Your task to perform on an android device: open app "Airtel Thanks" Image 0: 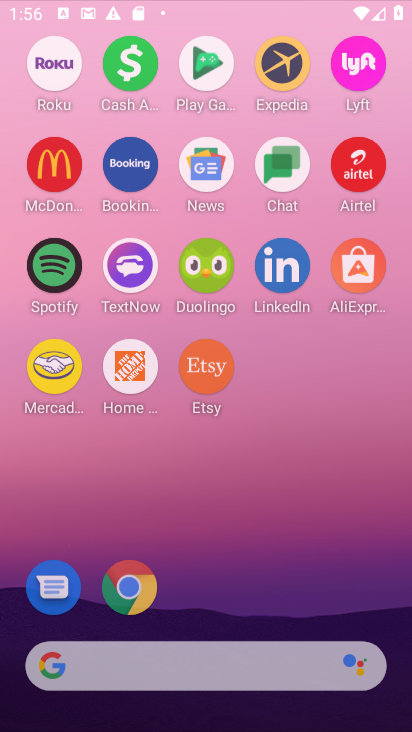
Step 0: drag from (285, 639) to (164, 13)
Your task to perform on an android device: open app "Airtel Thanks" Image 1: 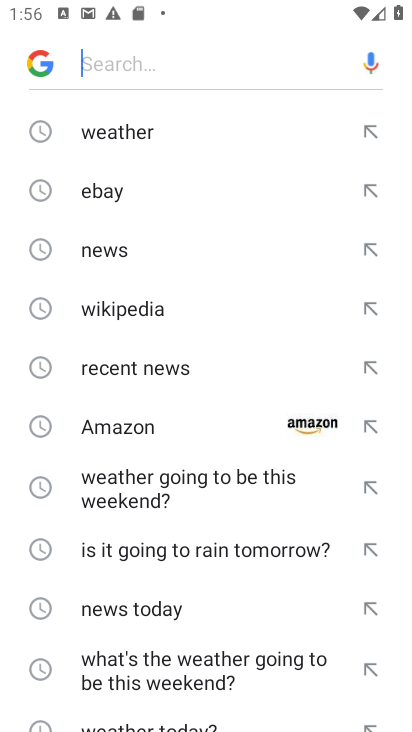
Step 1: press home button
Your task to perform on an android device: open app "Airtel Thanks" Image 2: 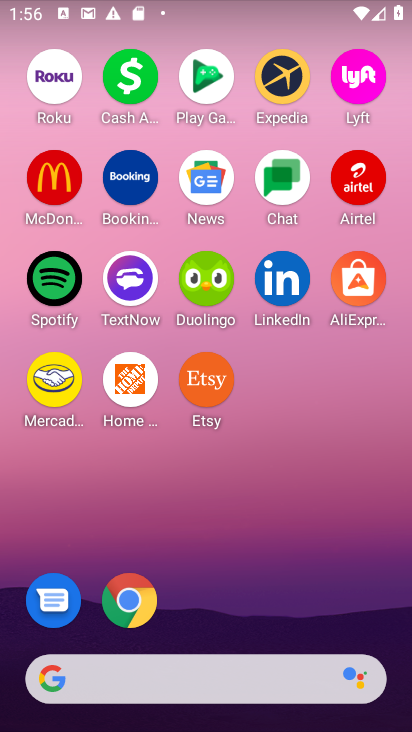
Step 2: drag from (254, 647) to (262, 106)
Your task to perform on an android device: open app "Airtel Thanks" Image 3: 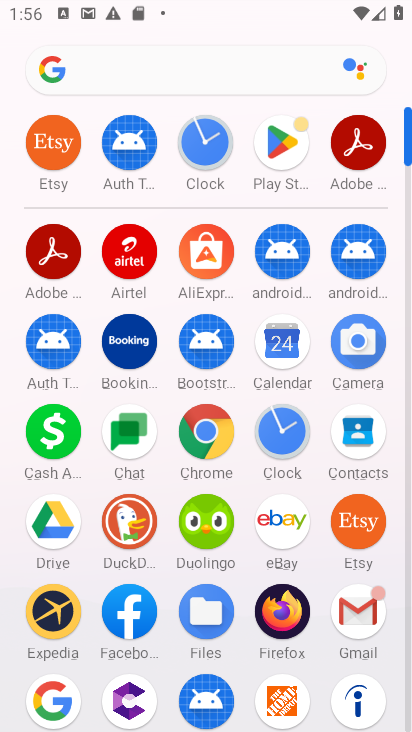
Step 3: click (262, 150)
Your task to perform on an android device: open app "Airtel Thanks" Image 4: 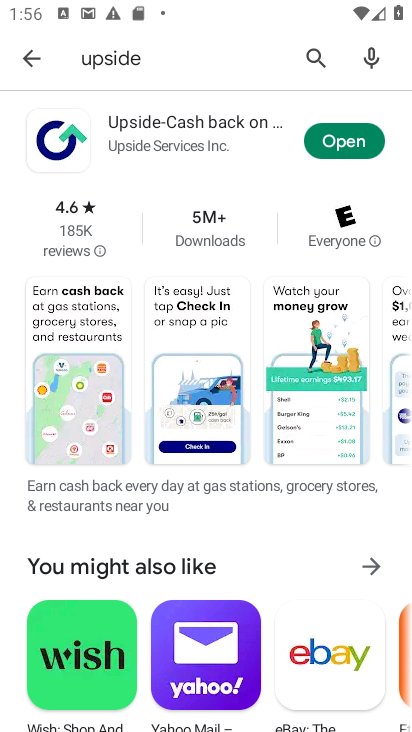
Step 4: click (315, 76)
Your task to perform on an android device: open app "Airtel Thanks" Image 5: 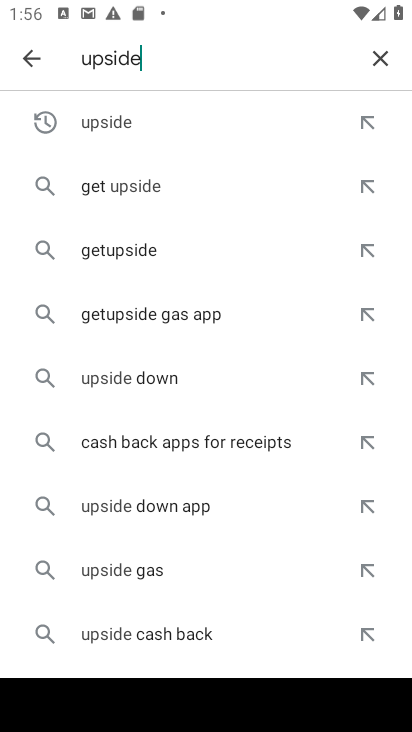
Step 5: click (373, 60)
Your task to perform on an android device: open app "Airtel Thanks" Image 6: 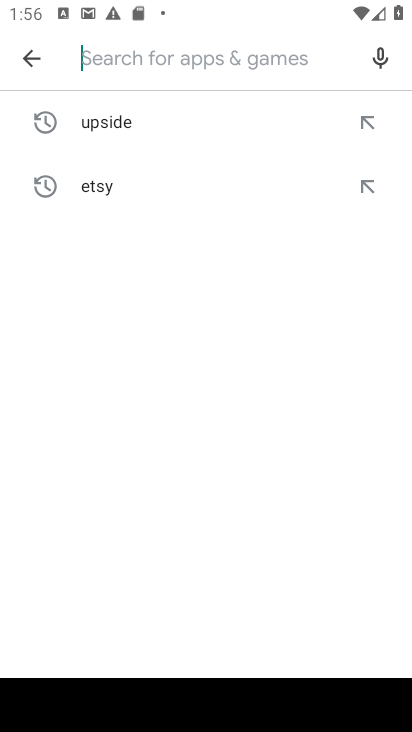
Step 6: type "airtel"
Your task to perform on an android device: open app "Airtel Thanks" Image 7: 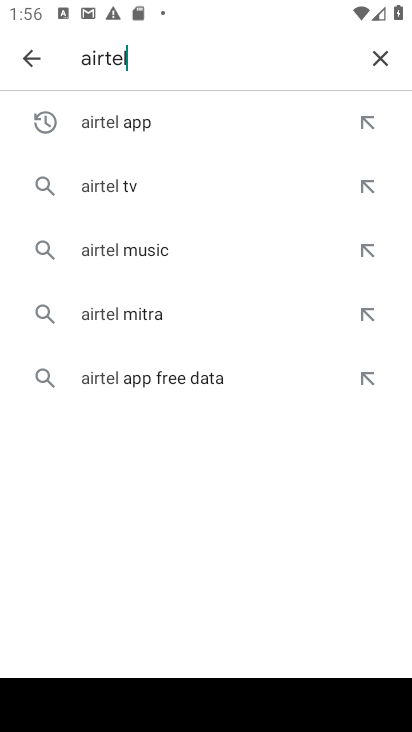
Step 7: click (162, 133)
Your task to perform on an android device: open app "Airtel Thanks" Image 8: 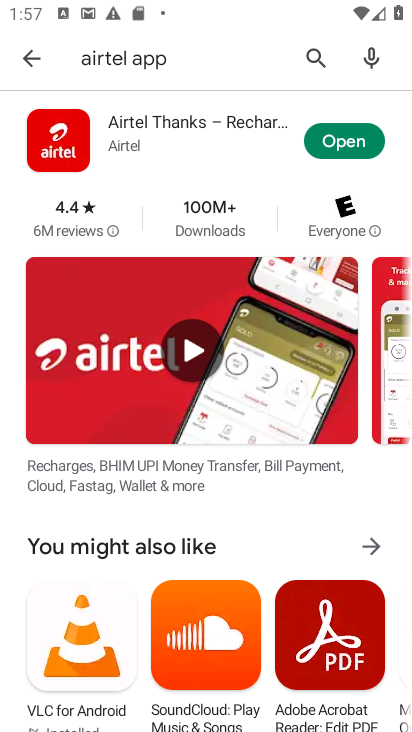
Step 8: click (375, 140)
Your task to perform on an android device: open app "Airtel Thanks" Image 9: 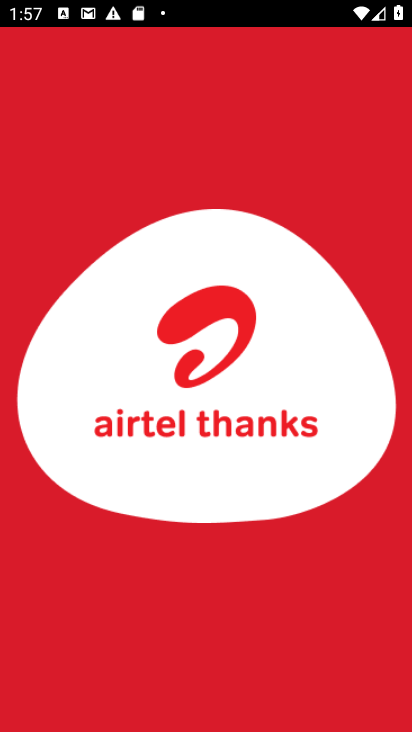
Step 9: task complete